Your task to perform on an android device: remove spam from my inbox in the gmail app Image 0: 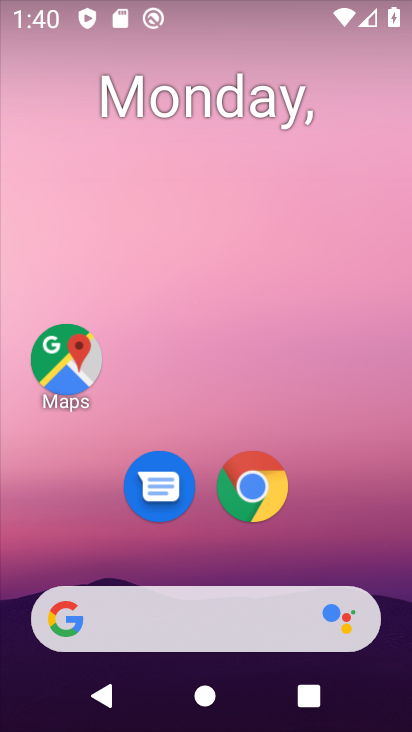
Step 0: drag from (217, 528) to (250, 92)
Your task to perform on an android device: remove spam from my inbox in the gmail app Image 1: 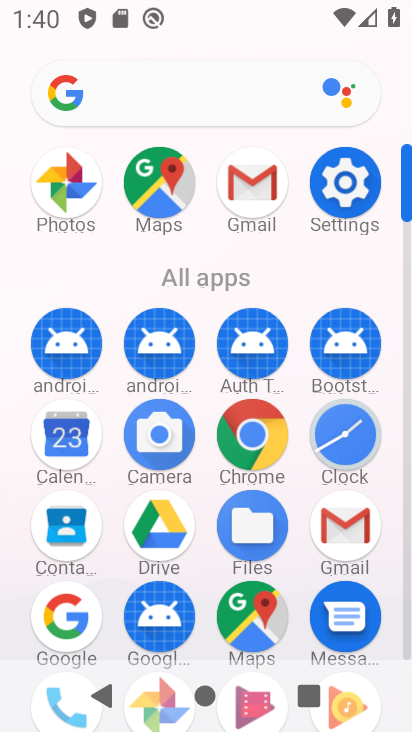
Step 1: click (251, 174)
Your task to perform on an android device: remove spam from my inbox in the gmail app Image 2: 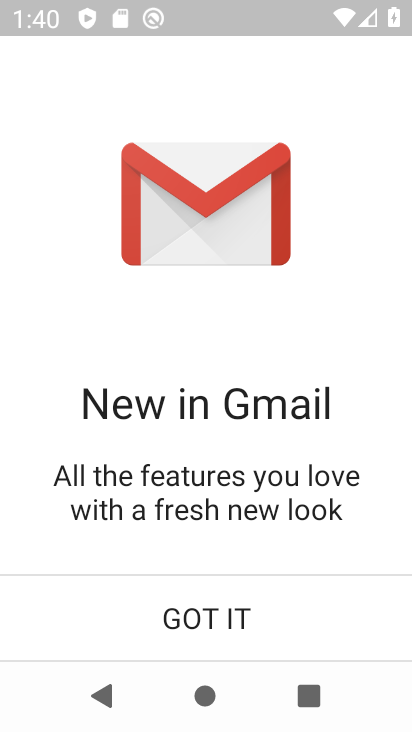
Step 2: click (164, 606)
Your task to perform on an android device: remove spam from my inbox in the gmail app Image 3: 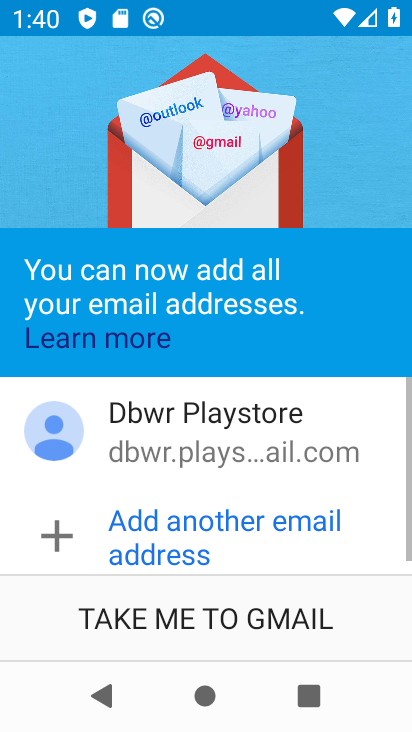
Step 3: click (156, 594)
Your task to perform on an android device: remove spam from my inbox in the gmail app Image 4: 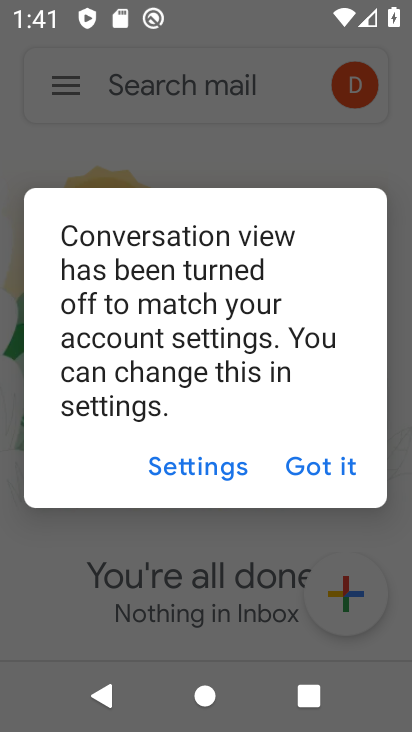
Step 4: click (305, 467)
Your task to perform on an android device: remove spam from my inbox in the gmail app Image 5: 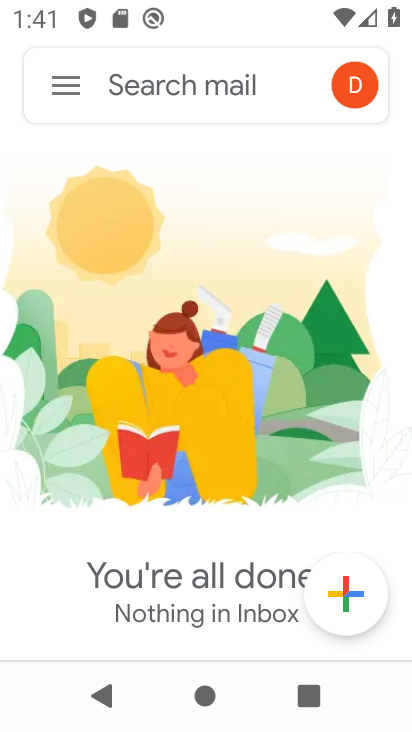
Step 5: click (51, 91)
Your task to perform on an android device: remove spam from my inbox in the gmail app Image 6: 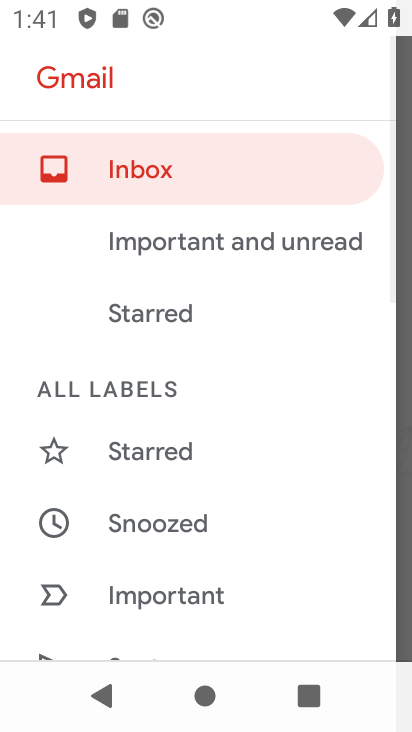
Step 6: drag from (129, 541) to (154, 200)
Your task to perform on an android device: remove spam from my inbox in the gmail app Image 7: 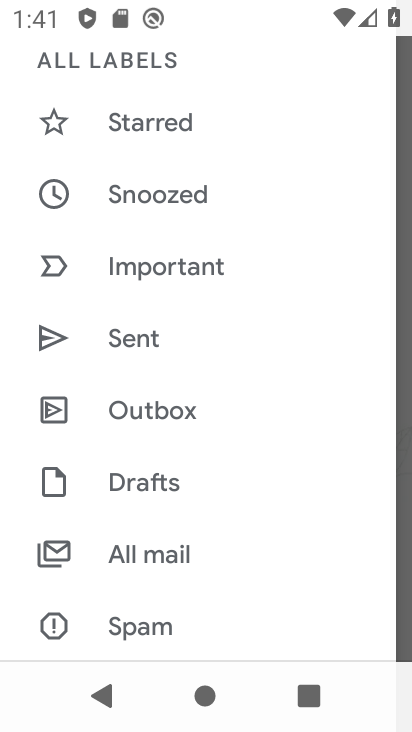
Step 7: click (156, 603)
Your task to perform on an android device: remove spam from my inbox in the gmail app Image 8: 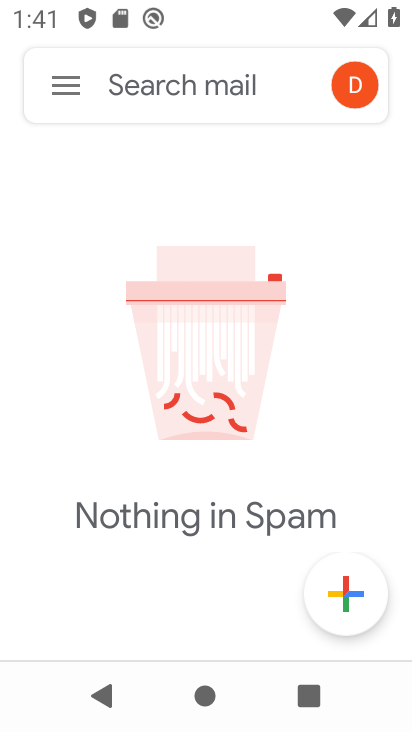
Step 8: task complete